Your task to perform on an android device: turn off notifications settings in the gmail app Image 0: 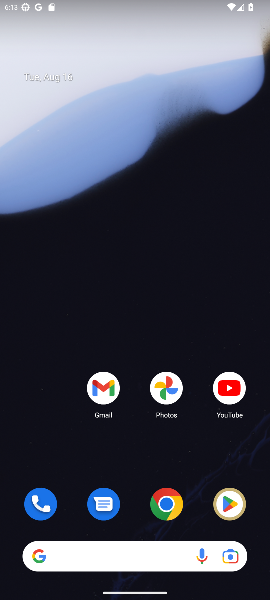
Step 0: click (102, 377)
Your task to perform on an android device: turn off notifications settings in the gmail app Image 1: 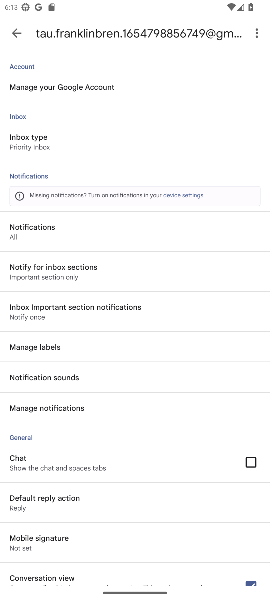
Step 1: press back button
Your task to perform on an android device: turn off notifications settings in the gmail app Image 2: 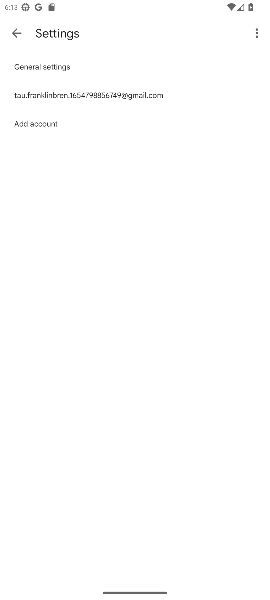
Step 2: press back button
Your task to perform on an android device: turn off notifications settings in the gmail app Image 3: 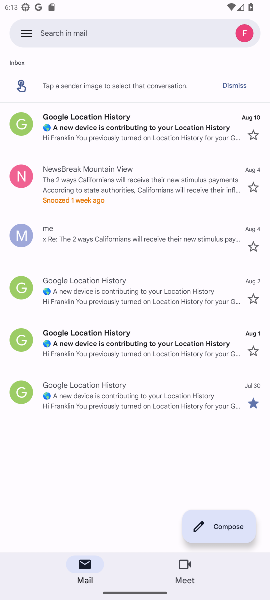
Step 3: click (25, 35)
Your task to perform on an android device: turn off notifications settings in the gmail app Image 4: 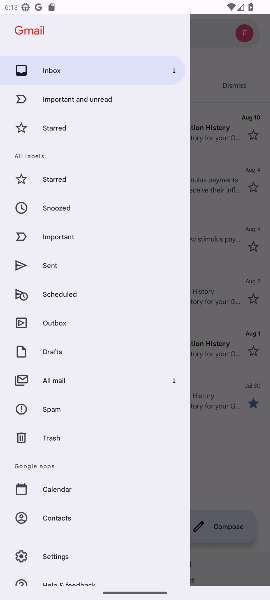
Step 4: click (63, 559)
Your task to perform on an android device: turn off notifications settings in the gmail app Image 5: 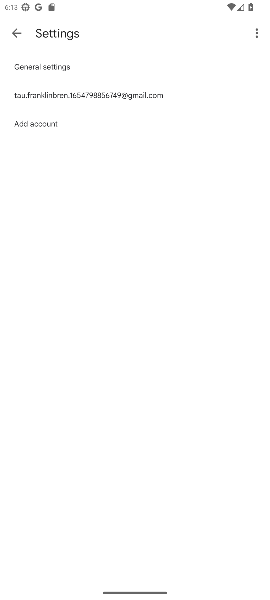
Step 5: click (37, 92)
Your task to perform on an android device: turn off notifications settings in the gmail app Image 6: 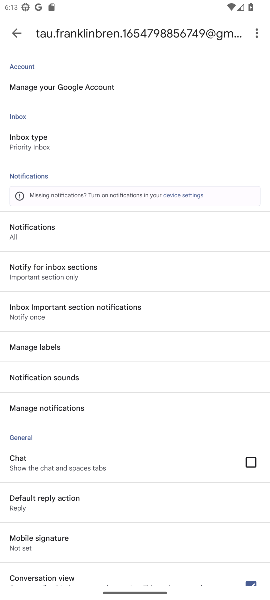
Step 6: click (51, 236)
Your task to perform on an android device: turn off notifications settings in the gmail app Image 7: 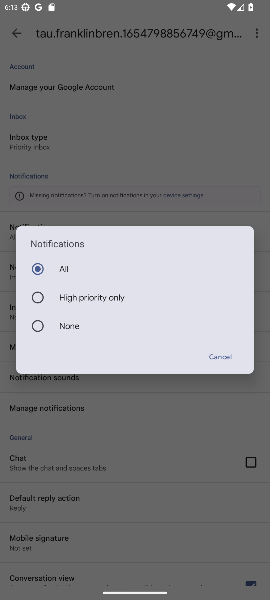
Step 7: task complete